Your task to perform on an android device: toggle notification dots Image 0: 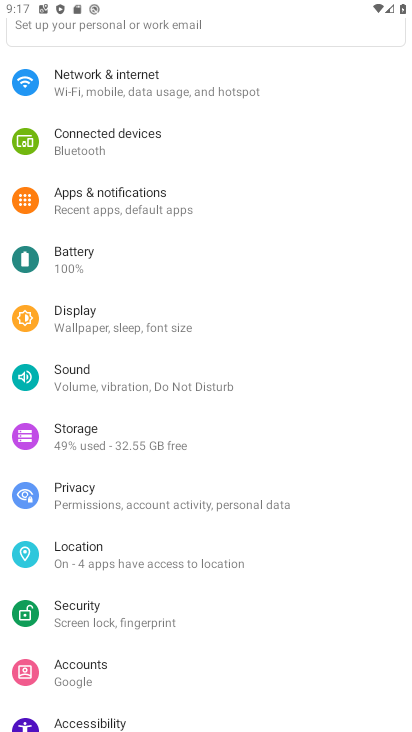
Step 0: press home button
Your task to perform on an android device: toggle notification dots Image 1: 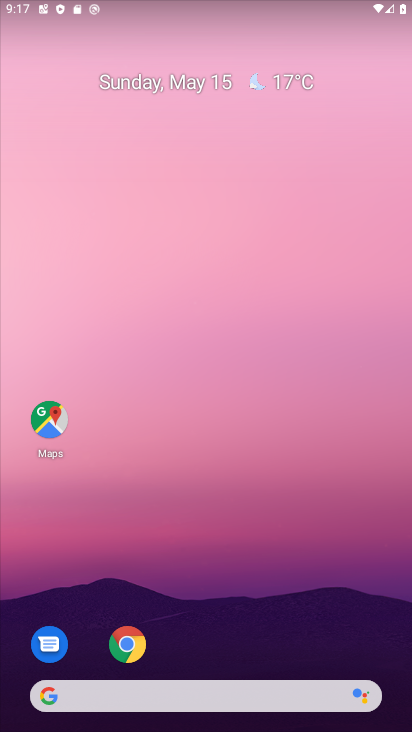
Step 1: drag from (225, 669) to (319, 261)
Your task to perform on an android device: toggle notification dots Image 2: 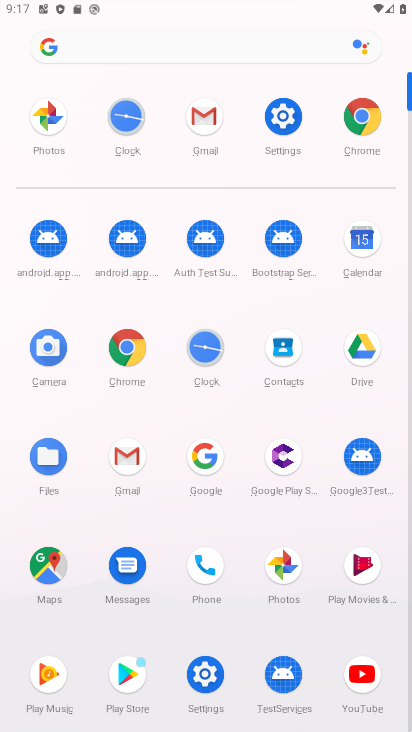
Step 2: click (279, 114)
Your task to perform on an android device: toggle notification dots Image 3: 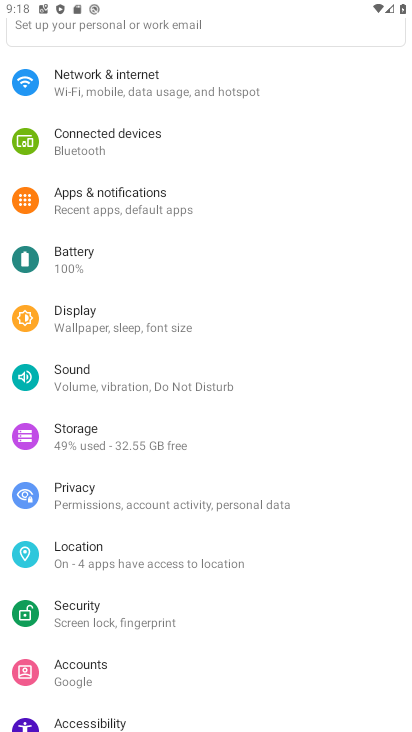
Step 3: click (160, 34)
Your task to perform on an android device: toggle notification dots Image 4: 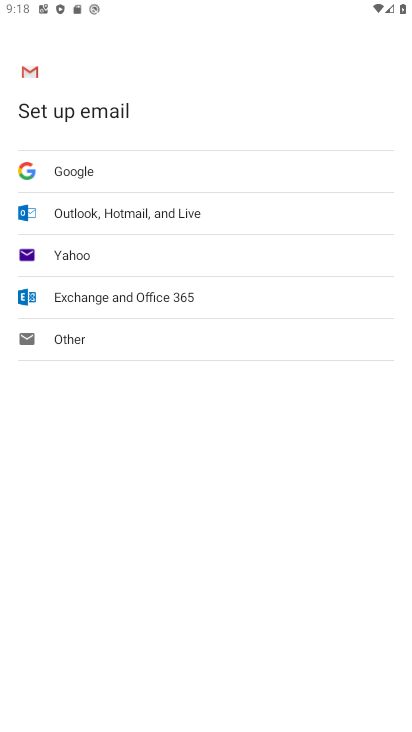
Step 4: press back button
Your task to perform on an android device: toggle notification dots Image 5: 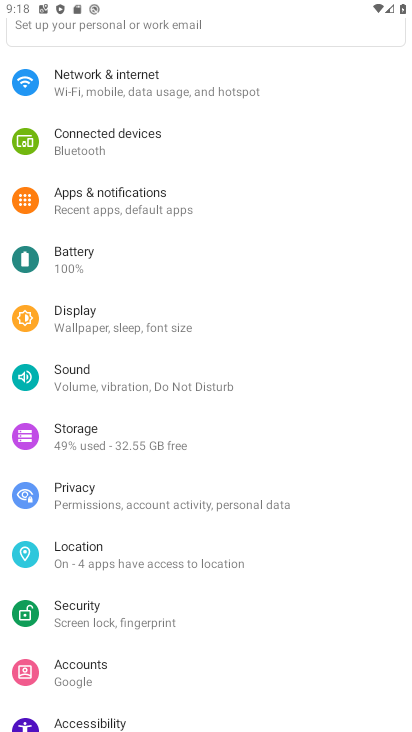
Step 5: drag from (181, 302) to (157, 526)
Your task to perform on an android device: toggle notification dots Image 6: 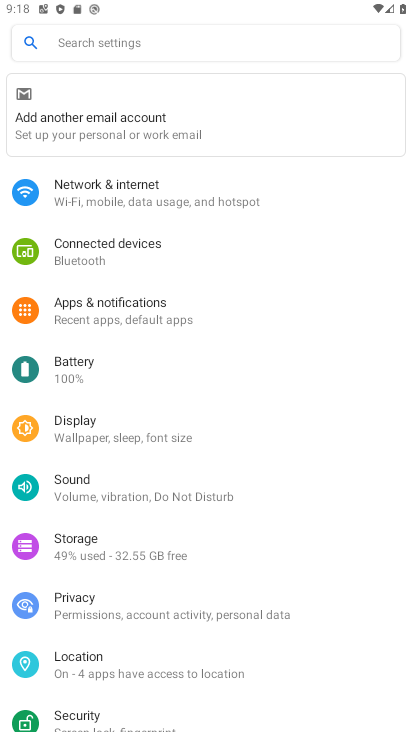
Step 6: click (117, 38)
Your task to perform on an android device: toggle notification dots Image 7: 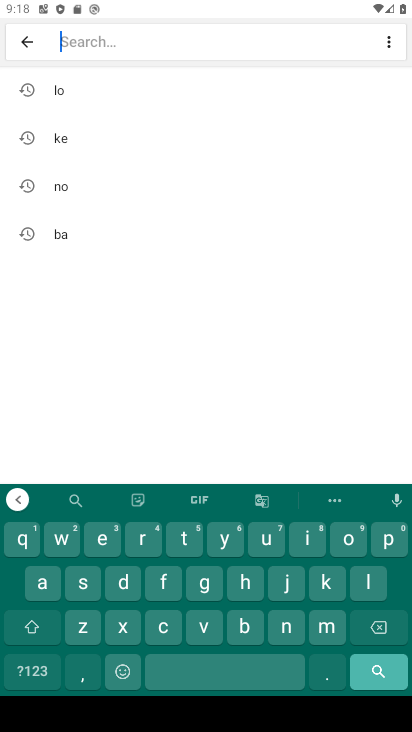
Step 7: click (128, 592)
Your task to perform on an android device: toggle notification dots Image 8: 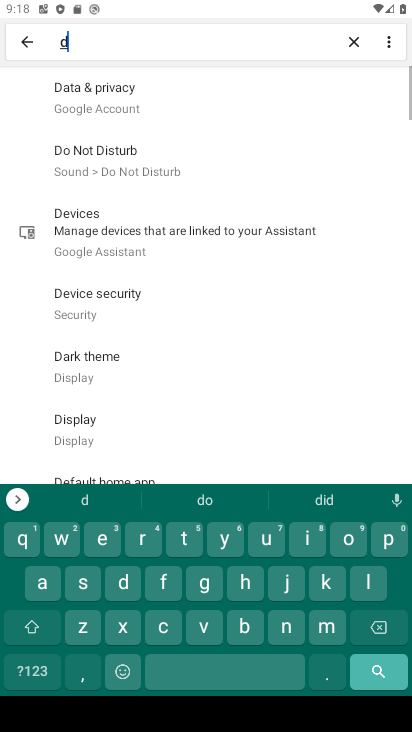
Step 8: click (345, 539)
Your task to perform on an android device: toggle notification dots Image 9: 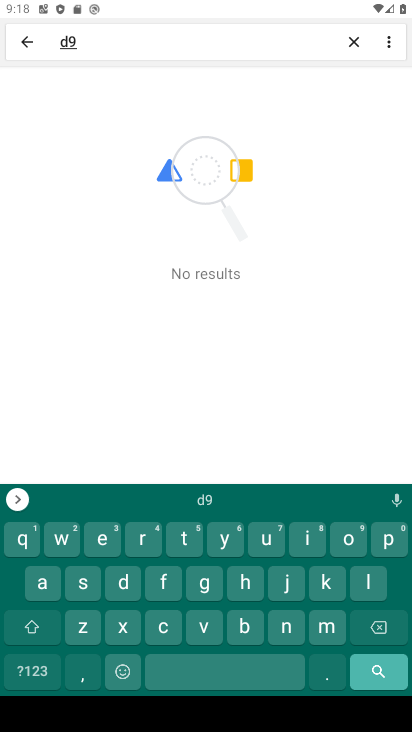
Step 9: click (381, 633)
Your task to perform on an android device: toggle notification dots Image 10: 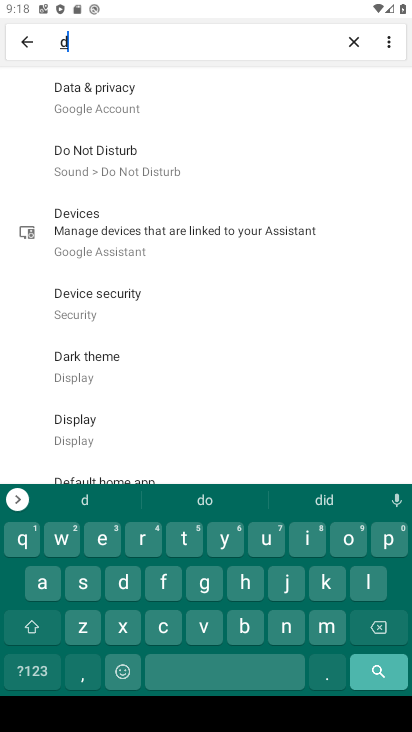
Step 10: click (344, 546)
Your task to perform on an android device: toggle notification dots Image 11: 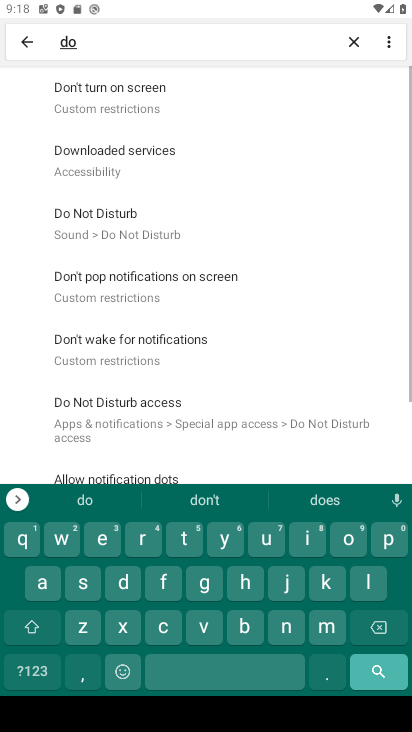
Step 11: click (185, 548)
Your task to perform on an android device: toggle notification dots Image 12: 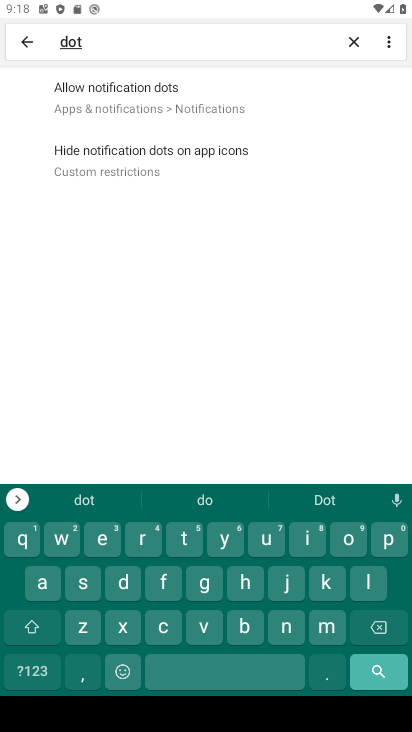
Step 12: click (161, 100)
Your task to perform on an android device: toggle notification dots Image 13: 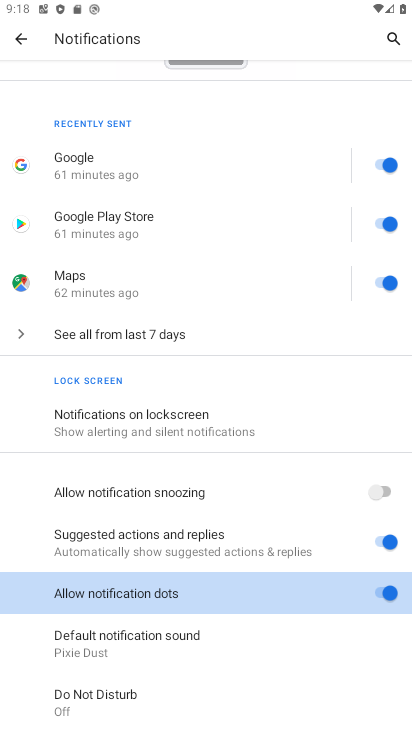
Step 13: task complete